Your task to perform on an android device: Go to eBay Image 0: 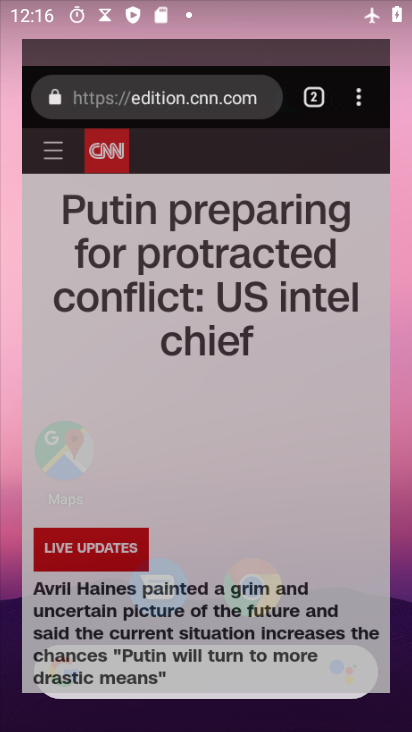
Step 0: drag from (352, 620) to (103, 146)
Your task to perform on an android device: Go to eBay Image 1: 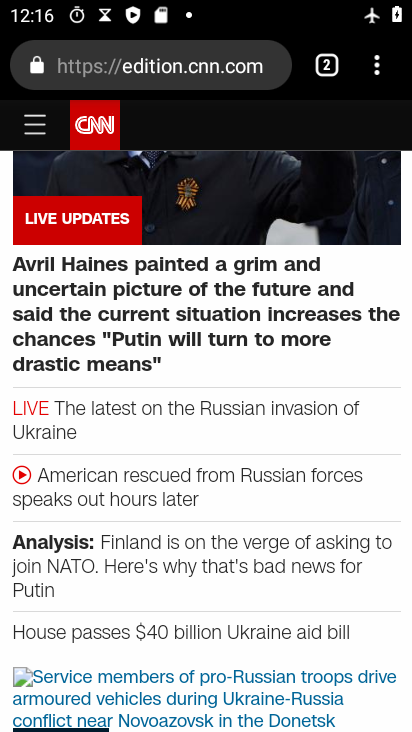
Step 1: press back button
Your task to perform on an android device: Go to eBay Image 2: 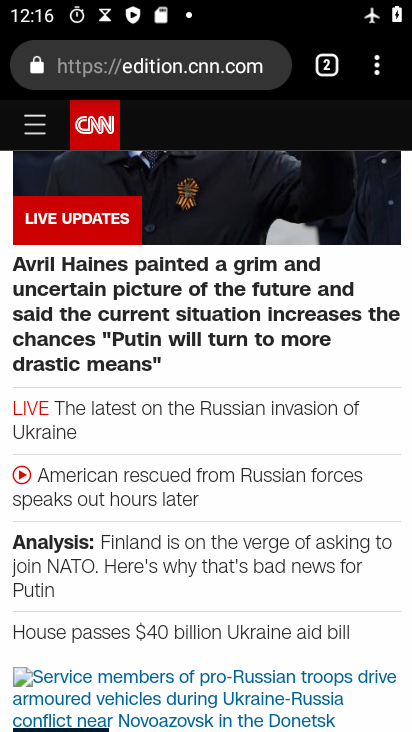
Step 2: press back button
Your task to perform on an android device: Go to eBay Image 3: 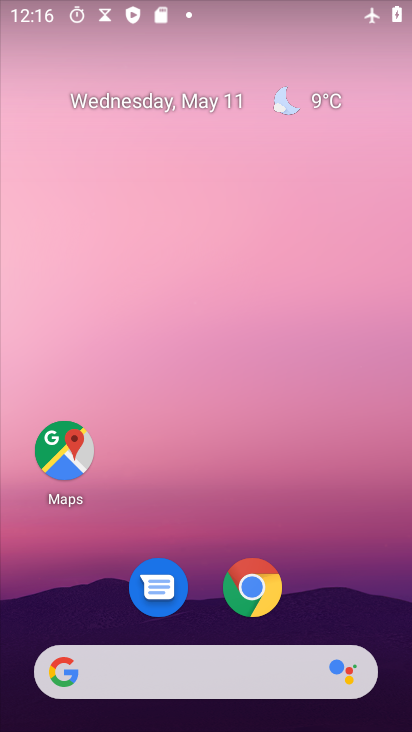
Step 3: drag from (365, 578) to (110, 177)
Your task to perform on an android device: Go to eBay Image 4: 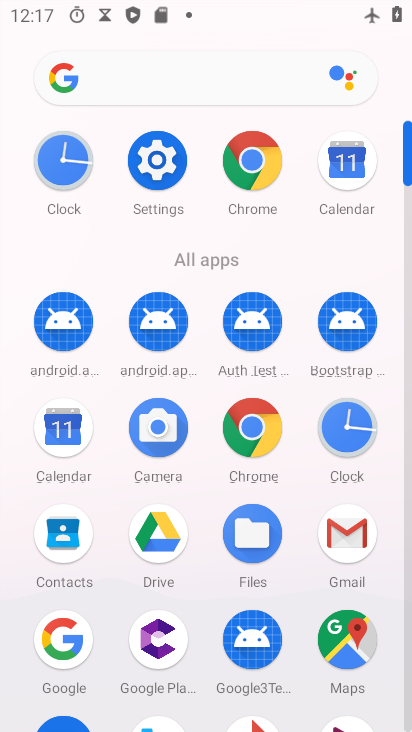
Step 4: click (242, 167)
Your task to perform on an android device: Go to eBay Image 5: 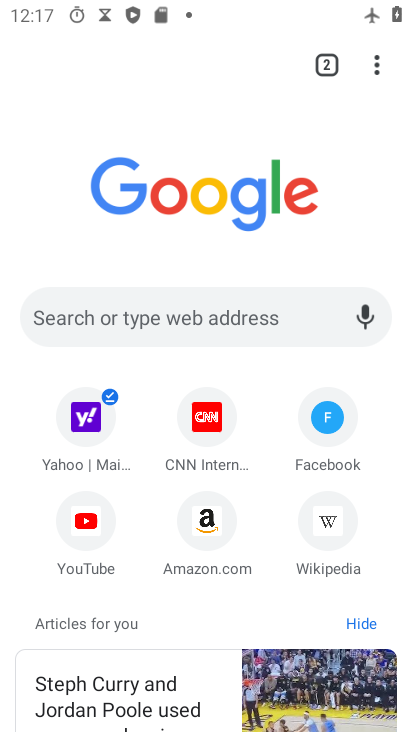
Step 5: click (60, 310)
Your task to perform on an android device: Go to eBay Image 6: 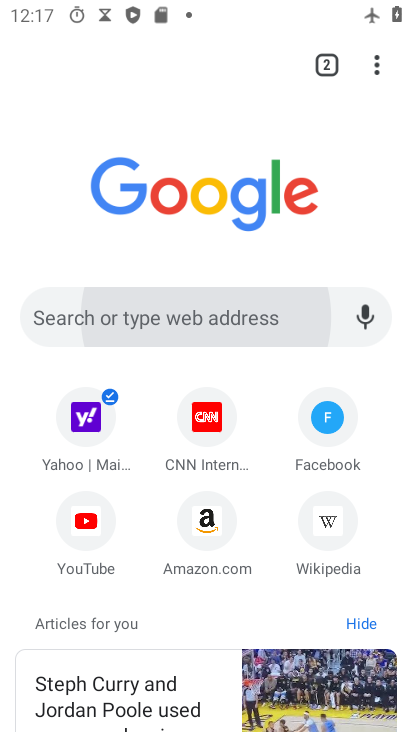
Step 6: click (57, 305)
Your task to perform on an android device: Go to eBay Image 7: 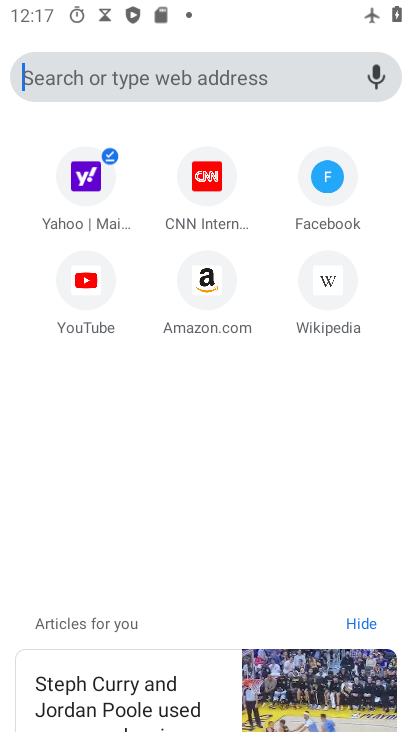
Step 7: click (56, 298)
Your task to perform on an android device: Go to eBay Image 8: 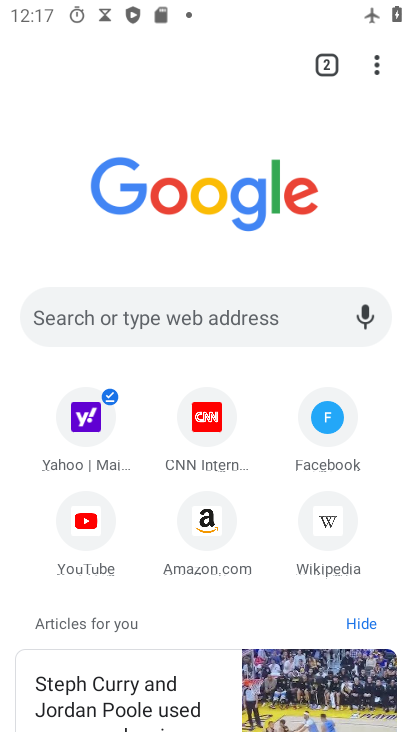
Step 8: click (63, 319)
Your task to perform on an android device: Go to eBay Image 9: 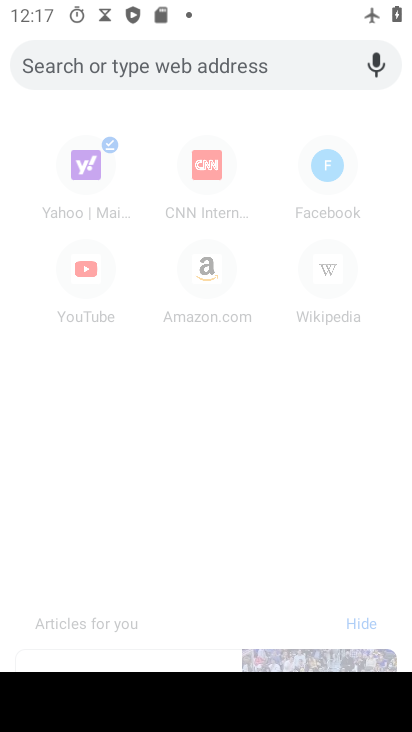
Step 9: type "www.ebay.com"
Your task to perform on an android device: Go to eBay Image 10: 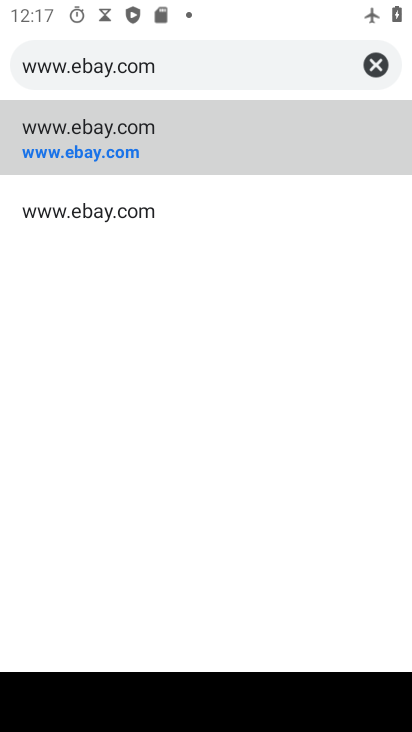
Step 10: click (72, 141)
Your task to perform on an android device: Go to eBay Image 11: 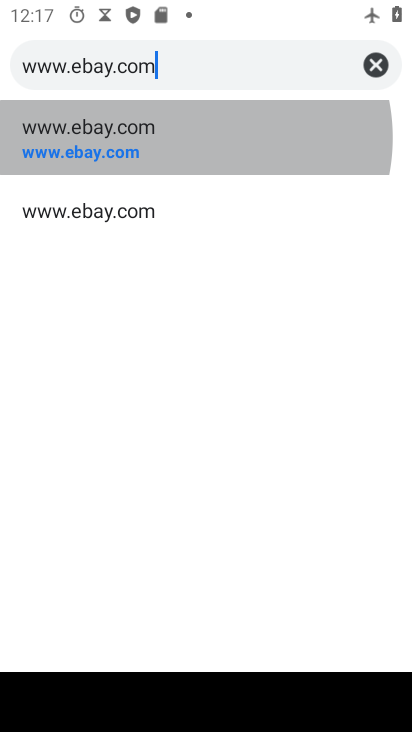
Step 11: click (72, 142)
Your task to perform on an android device: Go to eBay Image 12: 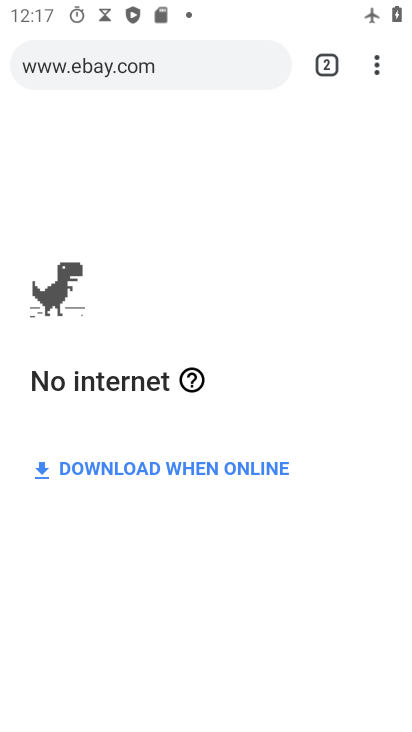
Step 12: task complete